Your task to perform on an android device: Open CNN.com Image 0: 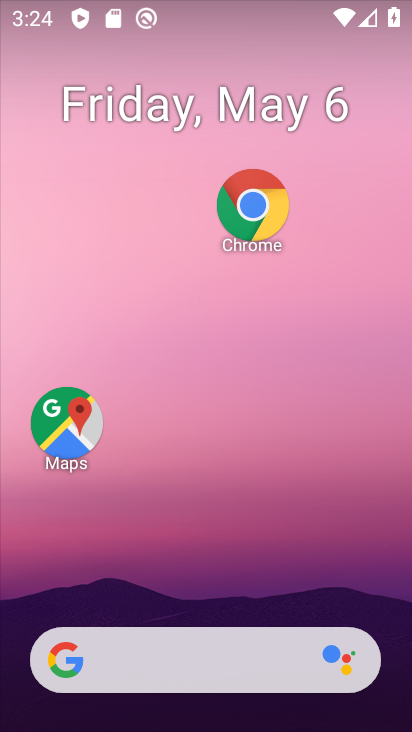
Step 0: drag from (183, 612) to (162, 6)
Your task to perform on an android device: Open CNN.com Image 1: 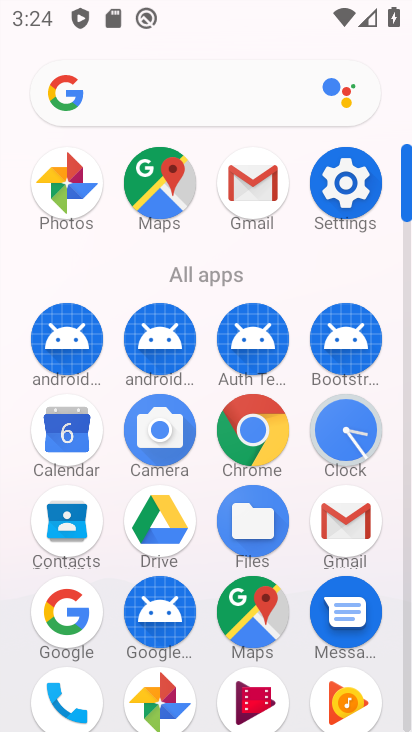
Step 1: click (249, 429)
Your task to perform on an android device: Open CNN.com Image 2: 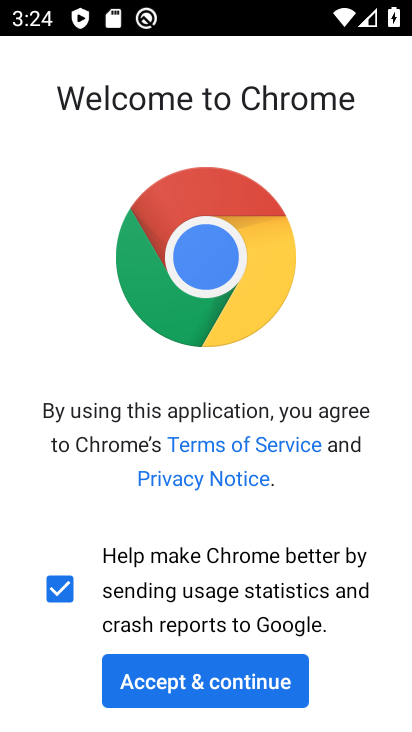
Step 2: click (225, 674)
Your task to perform on an android device: Open CNN.com Image 3: 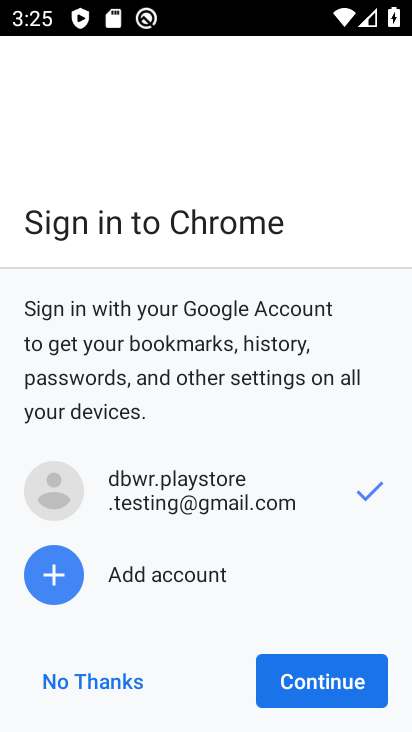
Step 3: click (323, 669)
Your task to perform on an android device: Open CNN.com Image 4: 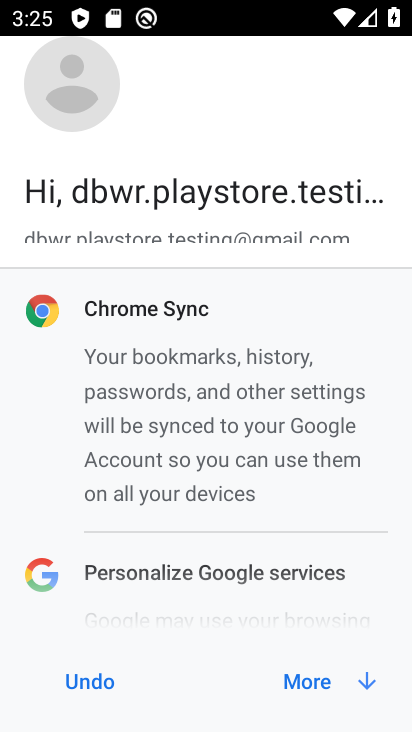
Step 4: click (338, 687)
Your task to perform on an android device: Open CNN.com Image 5: 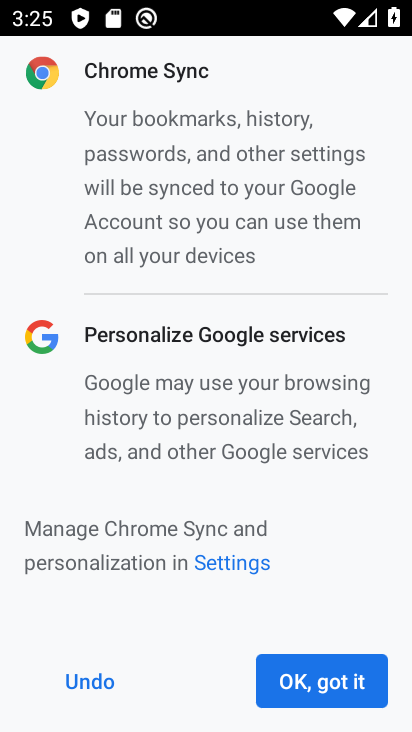
Step 5: click (338, 685)
Your task to perform on an android device: Open CNN.com Image 6: 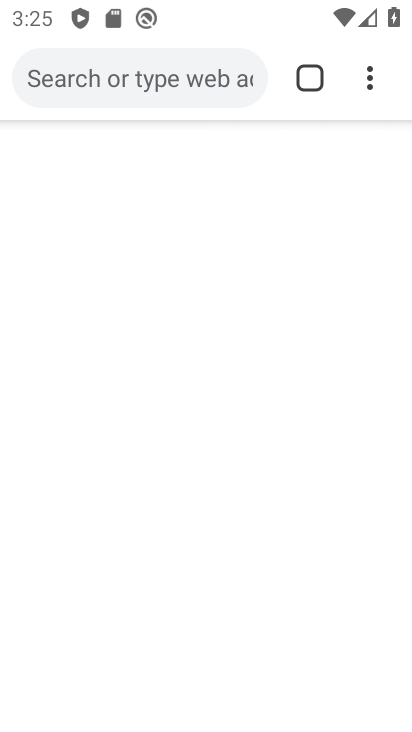
Step 6: click (200, 84)
Your task to perform on an android device: Open CNN.com Image 7: 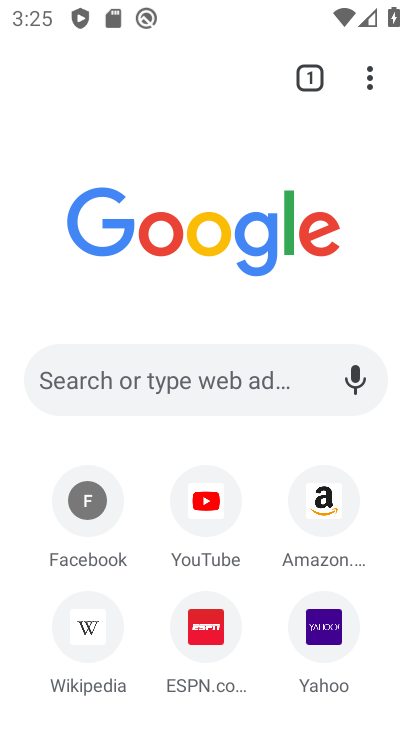
Step 7: click (195, 399)
Your task to perform on an android device: Open CNN.com Image 8: 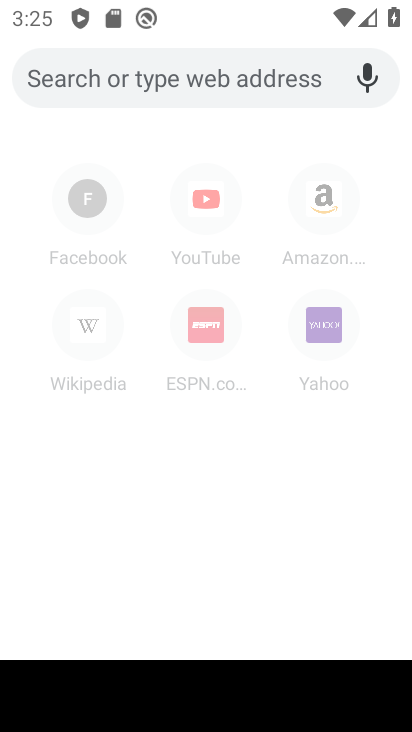
Step 8: type "cnn"
Your task to perform on an android device: Open CNN.com Image 9: 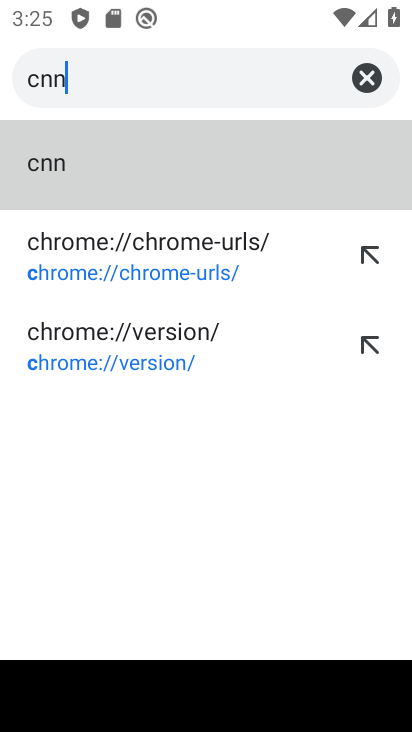
Step 9: type ""
Your task to perform on an android device: Open CNN.com Image 10: 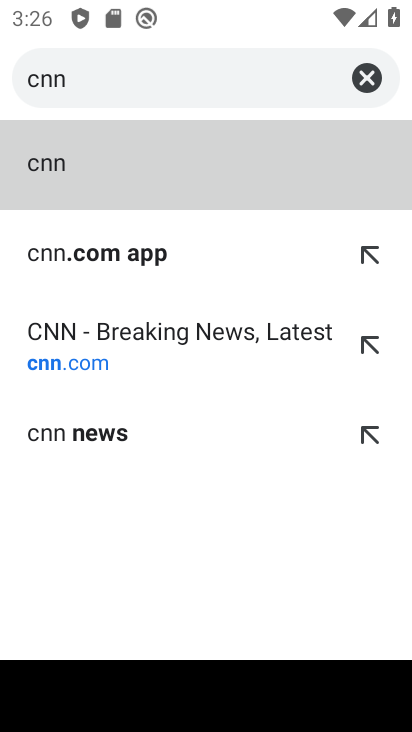
Step 10: click (178, 263)
Your task to perform on an android device: Open CNN.com Image 11: 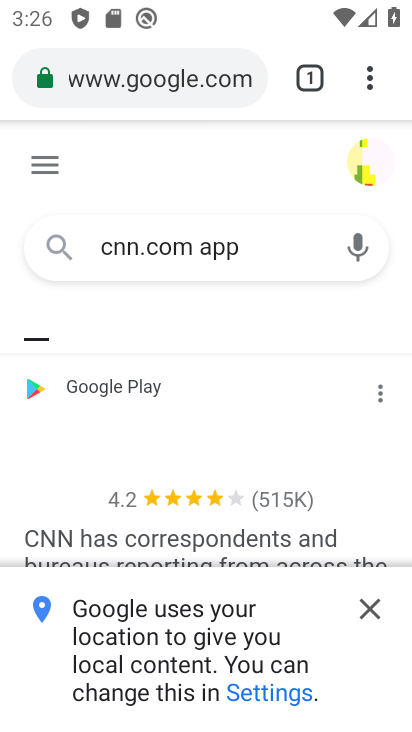
Step 11: click (372, 603)
Your task to perform on an android device: Open CNN.com Image 12: 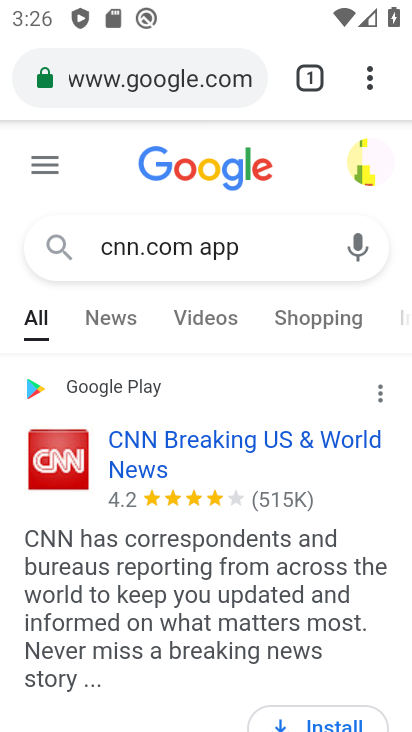
Step 12: click (205, 464)
Your task to perform on an android device: Open CNN.com Image 13: 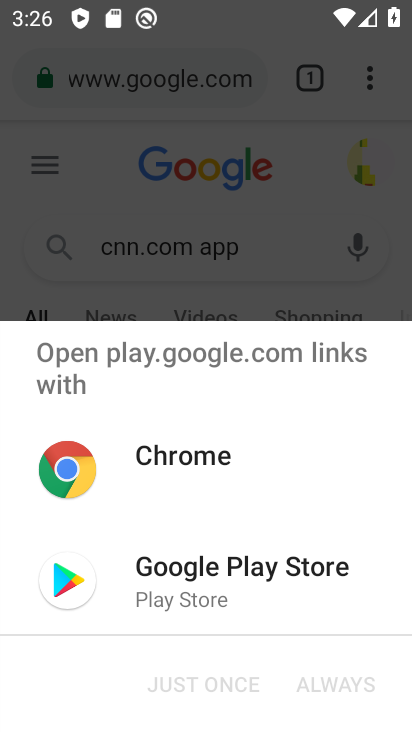
Step 13: press back button
Your task to perform on an android device: Open CNN.com Image 14: 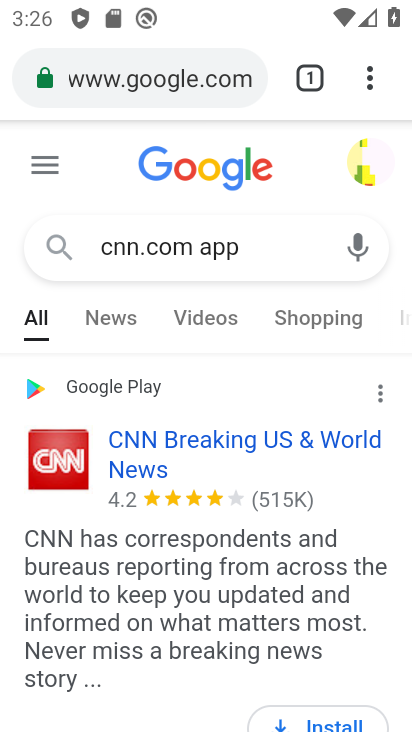
Step 14: drag from (229, 582) to (199, 34)
Your task to perform on an android device: Open CNN.com Image 15: 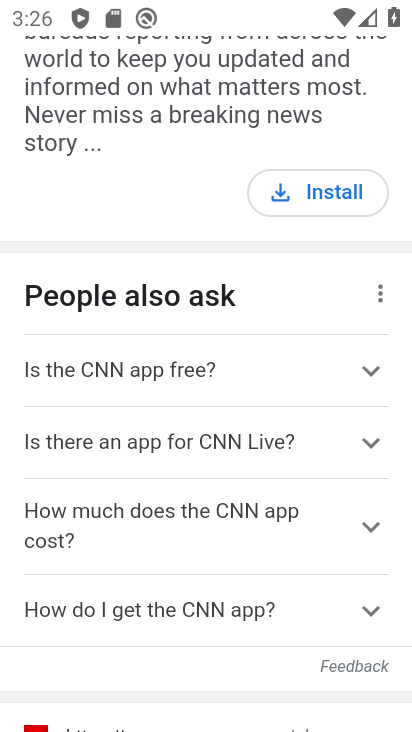
Step 15: drag from (287, 541) to (244, 204)
Your task to perform on an android device: Open CNN.com Image 16: 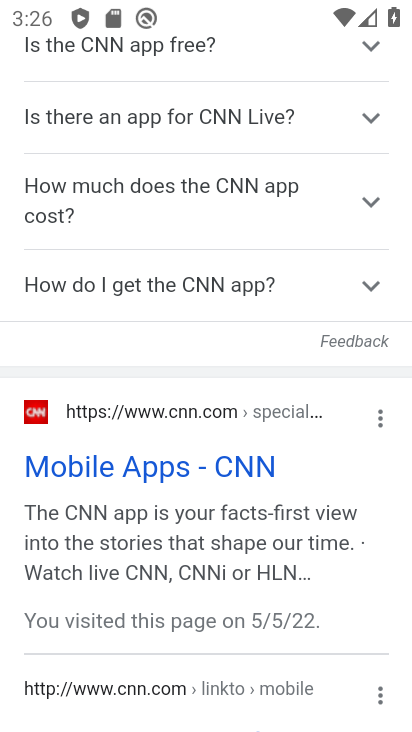
Step 16: click (156, 473)
Your task to perform on an android device: Open CNN.com Image 17: 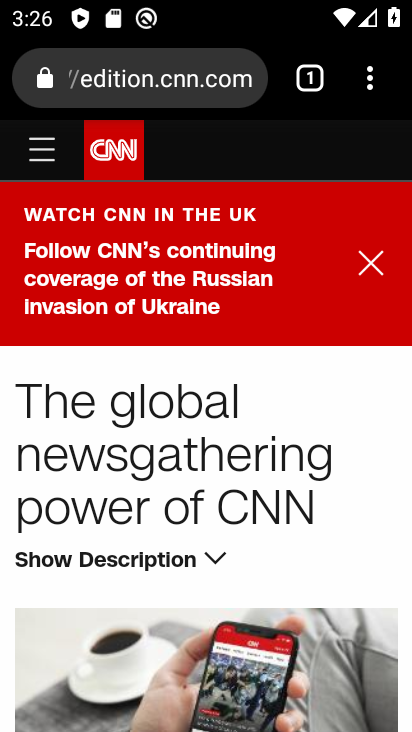
Step 17: task complete